Your task to perform on an android device: Open Google Chrome and click the shortcut for Amazon.com Image 0: 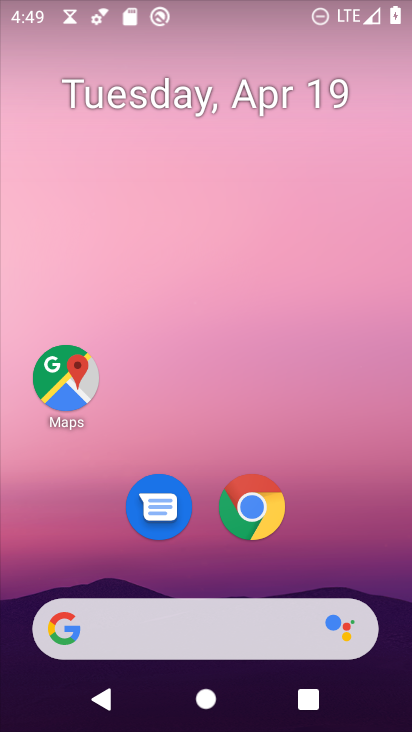
Step 0: click (258, 506)
Your task to perform on an android device: Open Google Chrome and click the shortcut for Amazon.com Image 1: 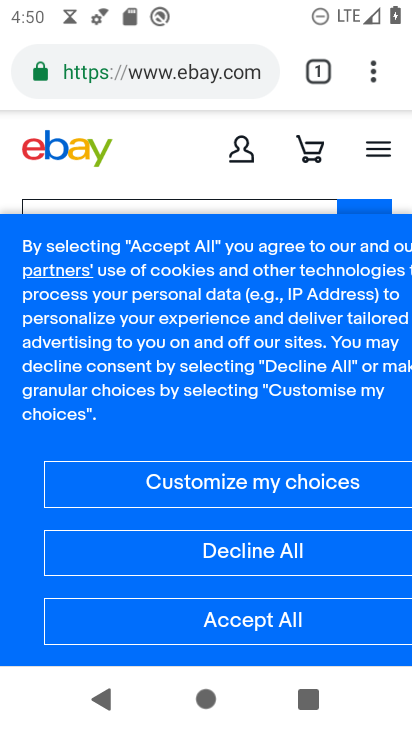
Step 1: click (374, 85)
Your task to perform on an android device: Open Google Chrome and click the shortcut for Amazon.com Image 2: 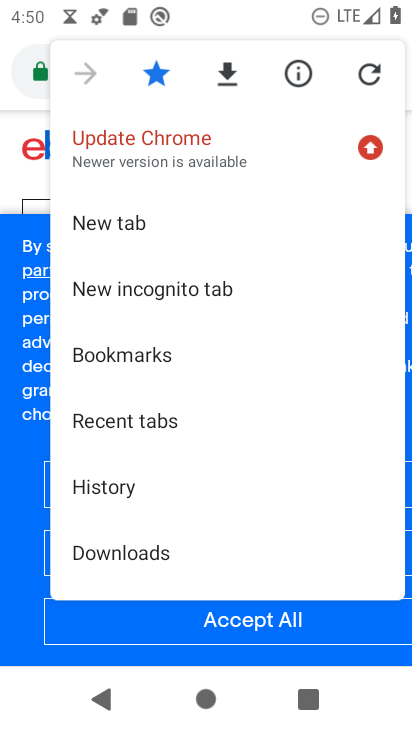
Step 2: click (189, 225)
Your task to perform on an android device: Open Google Chrome and click the shortcut for Amazon.com Image 3: 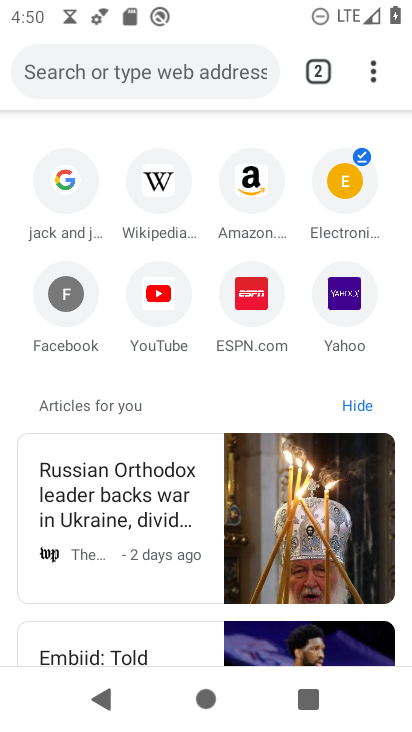
Step 3: click (246, 170)
Your task to perform on an android device: Open Google Chrome and click the shortcut for Amazon.com Image 4: 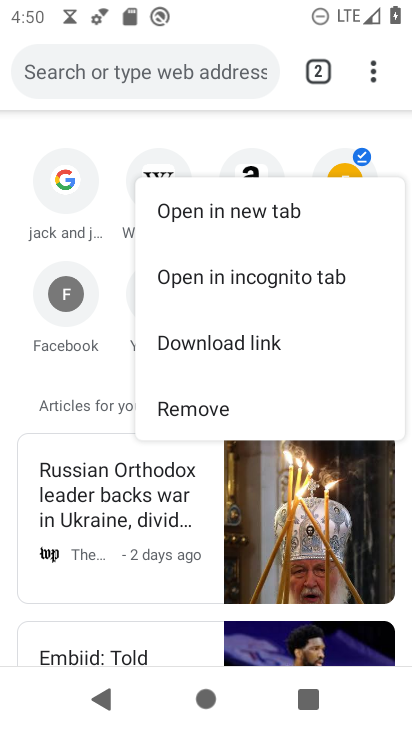
Step 4: click (241, 160)
Your task to perform on an android device: Open Google Chrome and click the shortcut for Amazon.com Image 5: 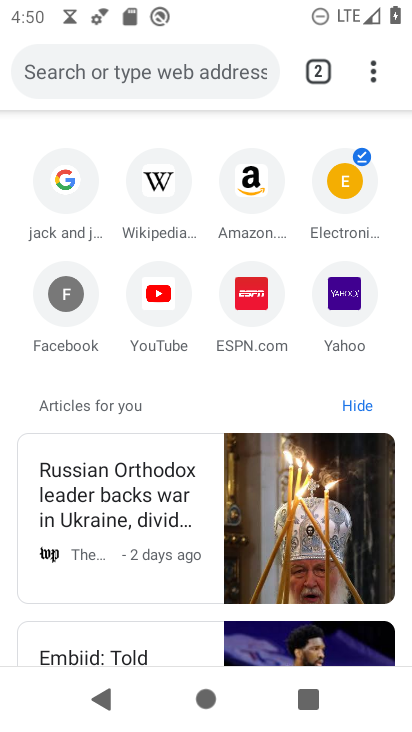
Step 5: click (241, 160)
Your task to perform on an android device: Open Google Chrome and click the shortcut for Amazon.com Image 6: 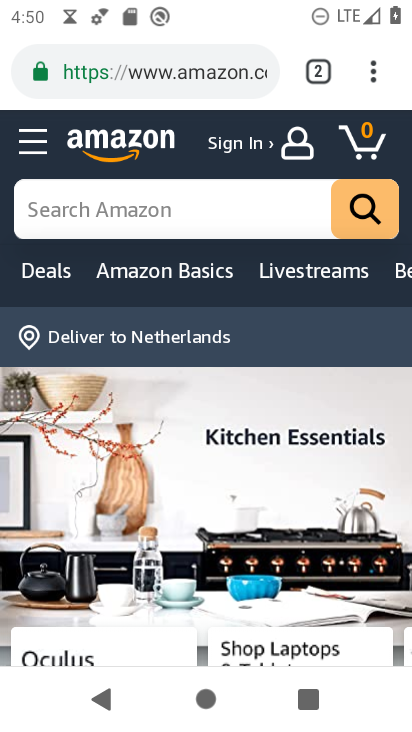
Step 6: task complete